Your task to perform on an android device: uninstall "Lyft - Rideshare, Bikes, Scooters & Transit" Image 0: 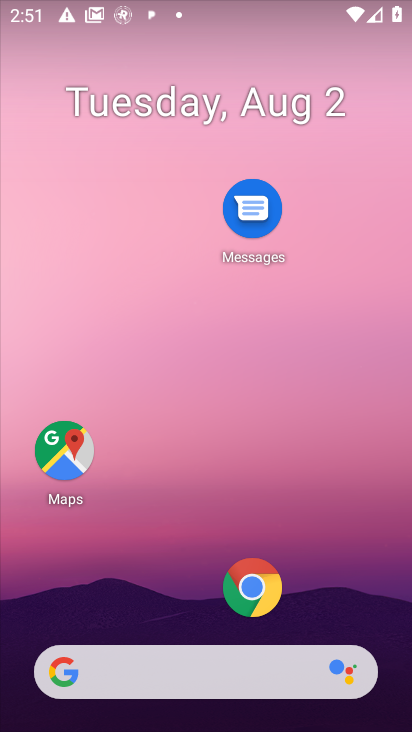
Step 0: drag from (175, 585) to (188, 176)
Your task to perform on an android device: uninstall "Lyft - Rideshare, Bikes, Scooters & Transit" Image 1: 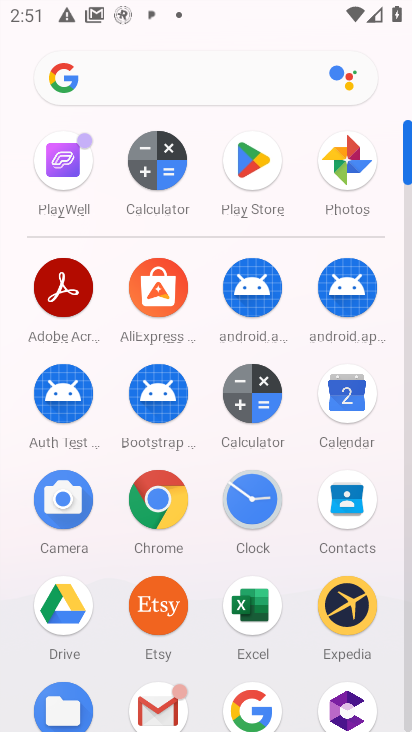
Step 1: click (243, 169)
Your task to perform on an android device: uninstall "Lyft - Rideshare, Bikes, Scooters & Transit" Image 2: 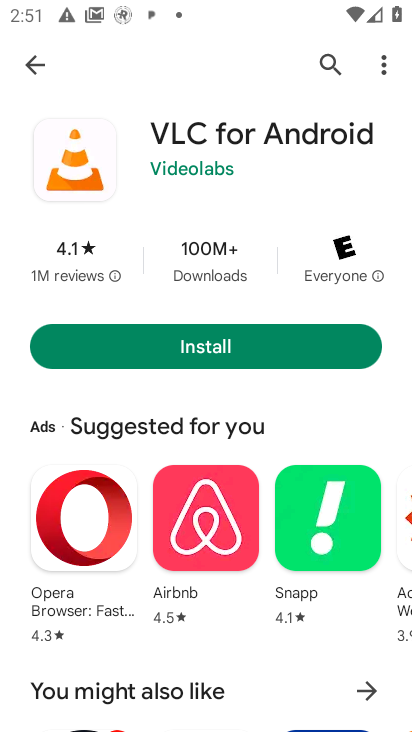
Step 2: click (337, 57)
Your task to perform on an android device: uninstall "Lyft - Rideshare, Bikes, Scooters & Transit" Image 3: 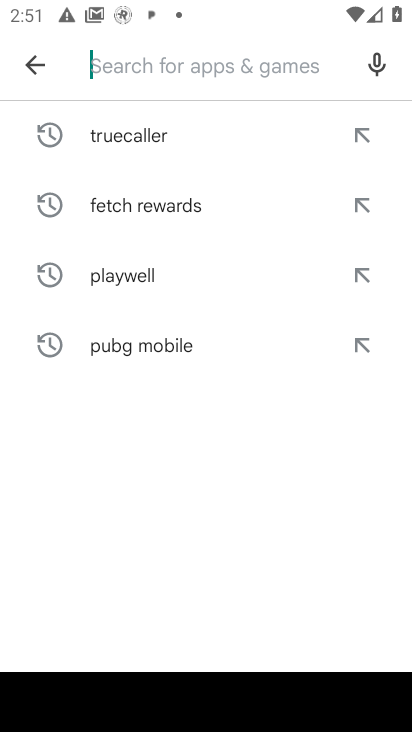
Step 3: type "Lyft - Rideshare, Bikes, Scooters & Transit"
Your task to perform on an android device: uninstall "Lyft - Rideshare, Bikes, Scooters & Transit" Image 4: 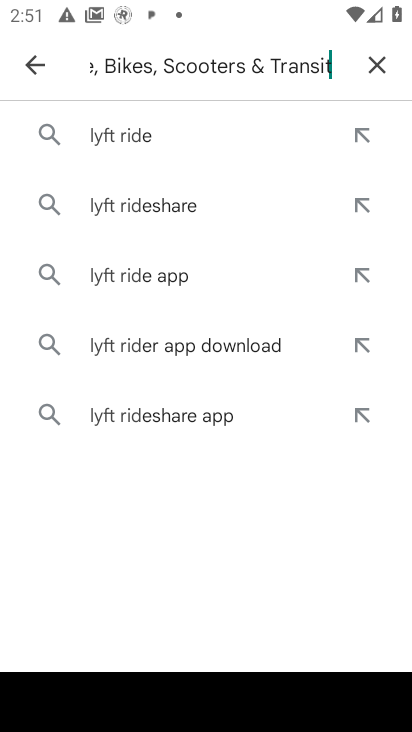
Step 4: type ""
Your task to perform on an android device: uninstall "Lyft - Rideshare, Bikes, Scooters & Transit" Image 5: 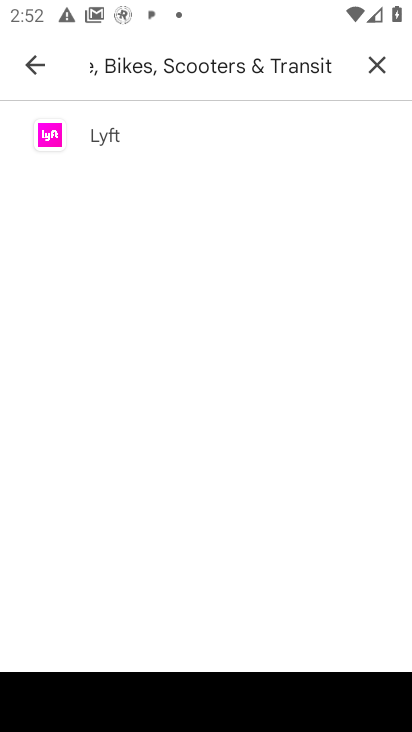
Step 5: click (131, 126)
Your task to perform on an android device: uninstall "Lyft - Rideshare, Bikes, Scooters & Transit" Image 6: 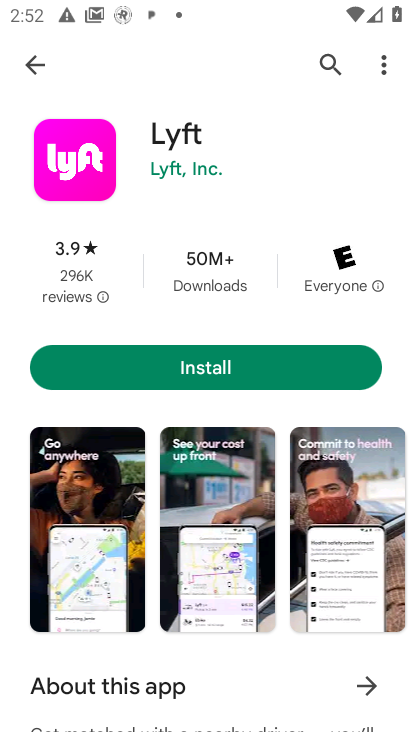
Step 6: task complete